Your task to perform on an android device: change the clock display to digital Image 0: 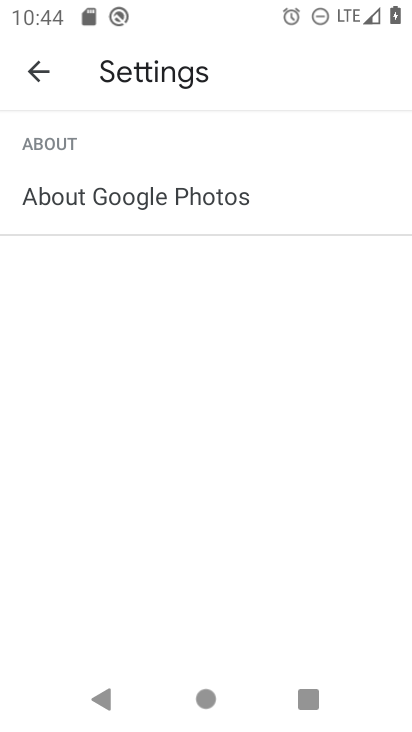
Step 0: press home button
Your task to perform on an android device: change the clock display to digital Image 1: 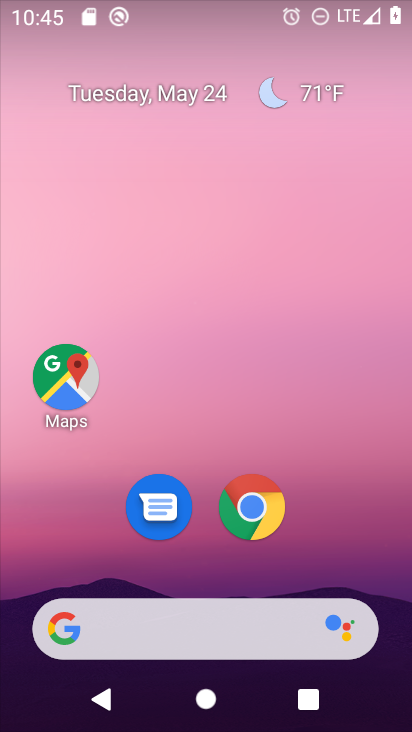
Step 1: drag from (230, 718) to (243, 616)
Your task to perform on an android device: change the clock display to digital Image 2: 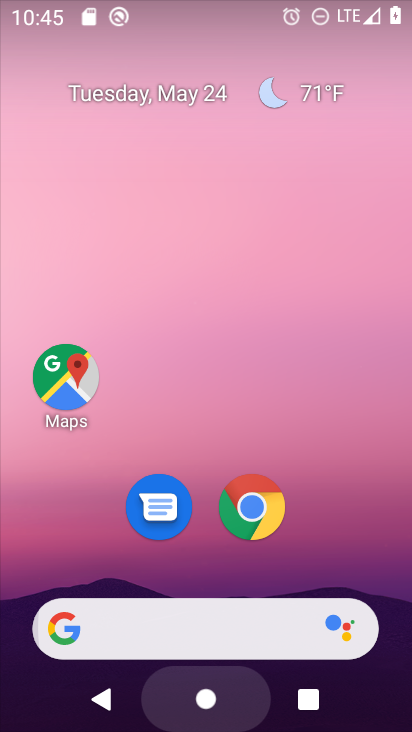
Step 2: click (254, 195)
Your task to perform on an android device: change the clock display to digital Image 3: 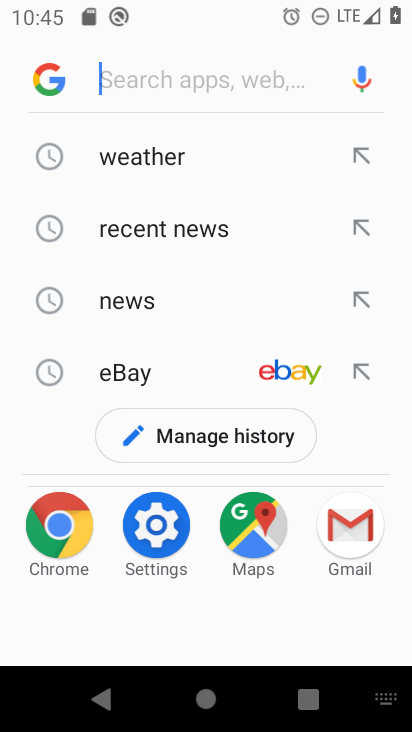
Step 3: press home button
Your task to perform on an android device: change the clock display to digital Image 4: 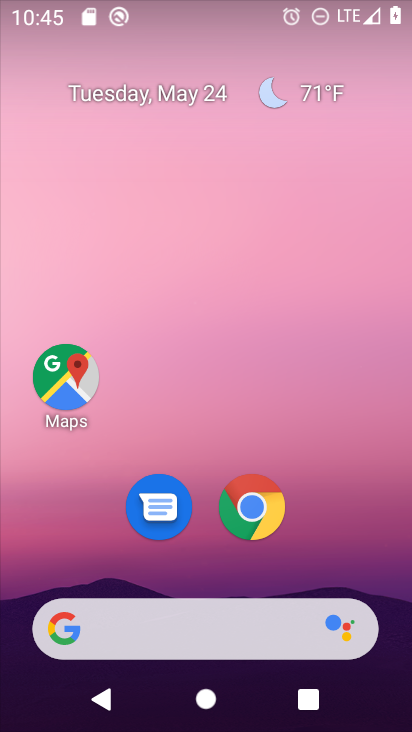
Step 4: drag from (222, 727) to (254, 59)
Your task to perform on an android device: change the clock display to digital Image 5: 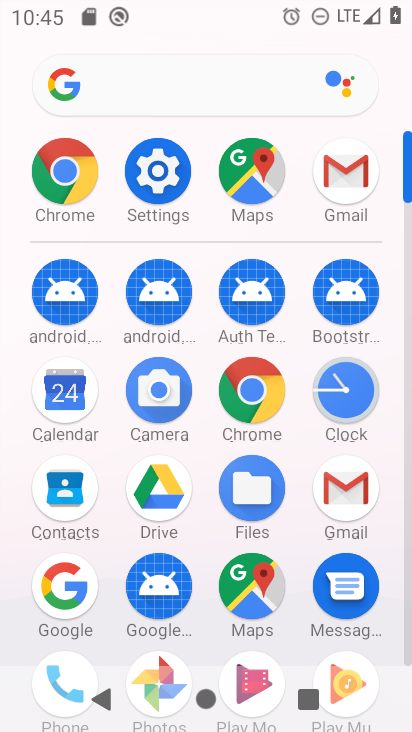
Step 5: click (327, 388)
Your task to perform on an android device: change the clock display to digital Image 6: 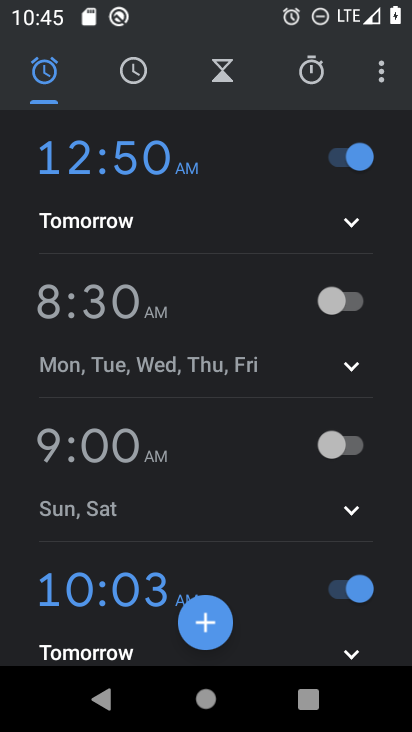
Step 6: click (384, 80)
Your task to perform on an android device: change the clock display to digital Image 7: 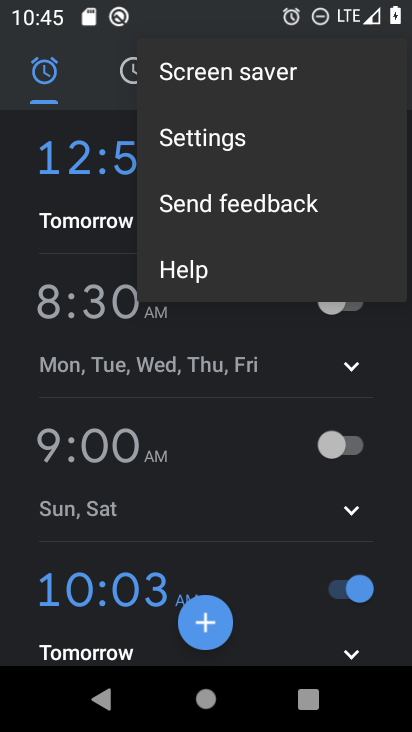
Step 7: click (224, 135)
Your task to perform on an android device: change the clock display to digital Image 8: 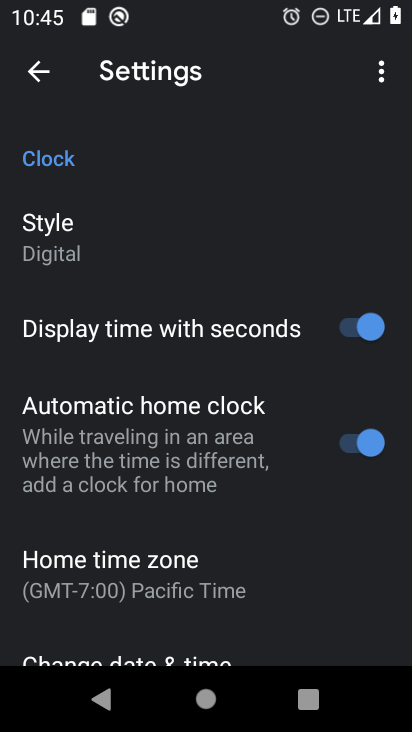
Step 8: task complete